Your task to perform on an android device: set default search engine in the chrome app Image 0: 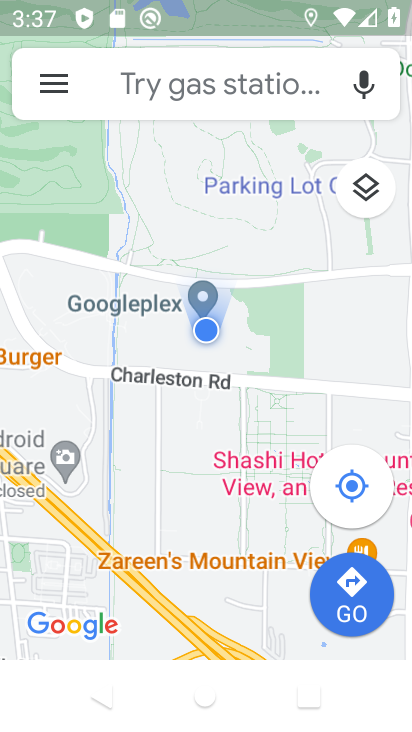
Step 0: press home button
Your task to perform on an android device: set default search engine in the chrome app Image 1: 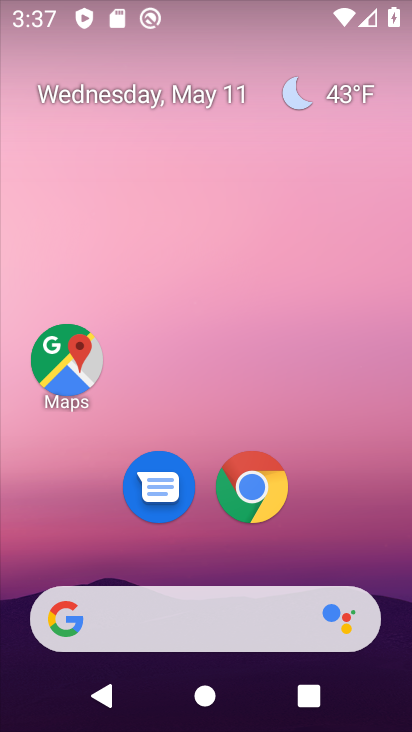
Step 1: drag from (314, 521) to (355, 195)
Your task to perform on an android device: set default search engine in the chrome app Image 2: 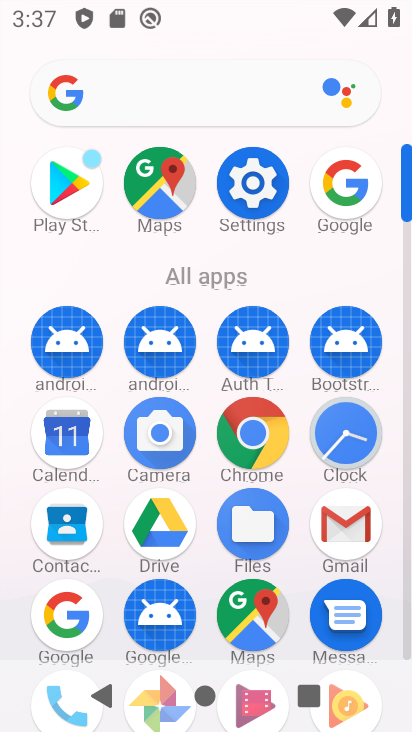
Step 2: click (257, 475)
Your task to perform on an android device: set default search engine in the chrome app Image 3: 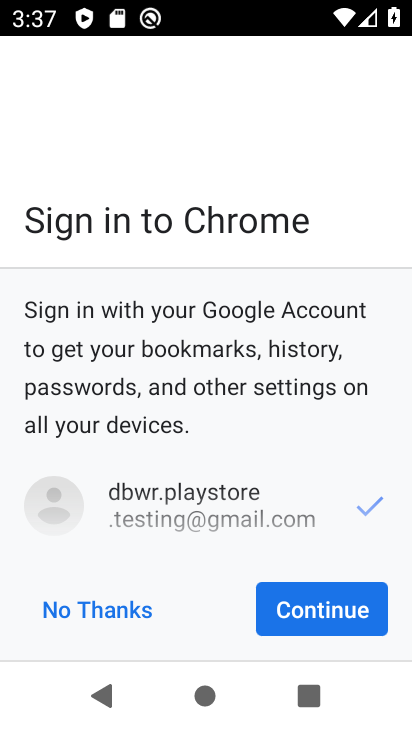
Step 3: click (310, 608)
Your task to perform on an android device: set default search engine in the chrome app Image 4: 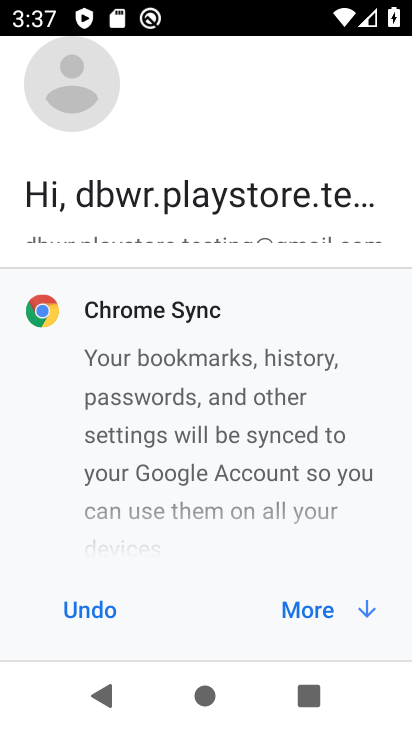
Step 4: click (310, 608)
Your task to perform on an android device: set default search engine in the chrome app Image 5: 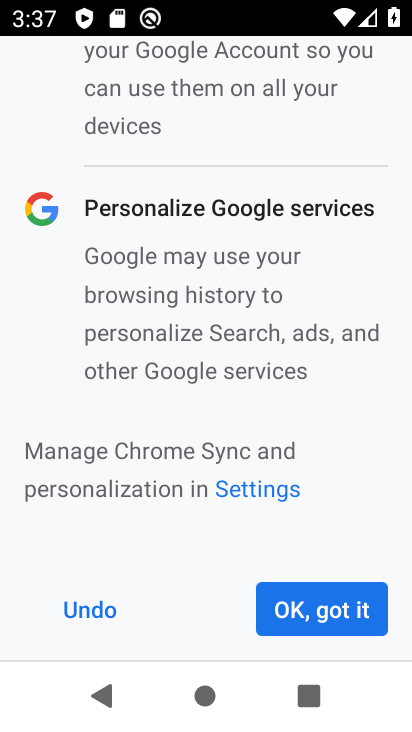
Step 5: click (310, 608)
Your task to perform on an android device: set default search engine in the chrome app Image 6: 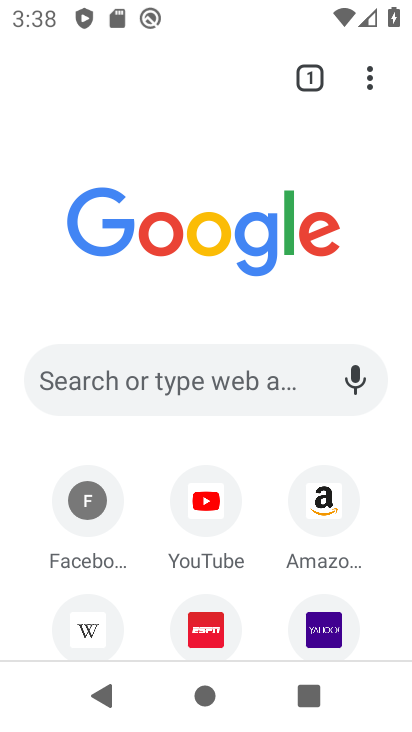
Step 6: click (367, 76)
Your task to perform on an android device: set default search engine in the chrome app Image 7: 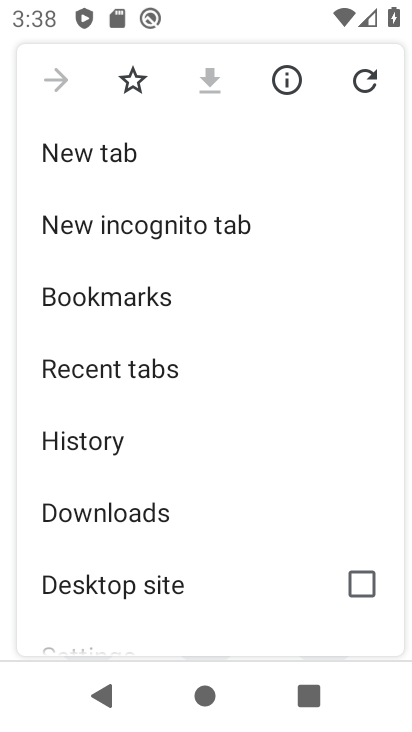
Step 7: drag from (217, 552) to (205, 287)
Your task to perform on an android device: set default search engine in the chrome app Image 8: 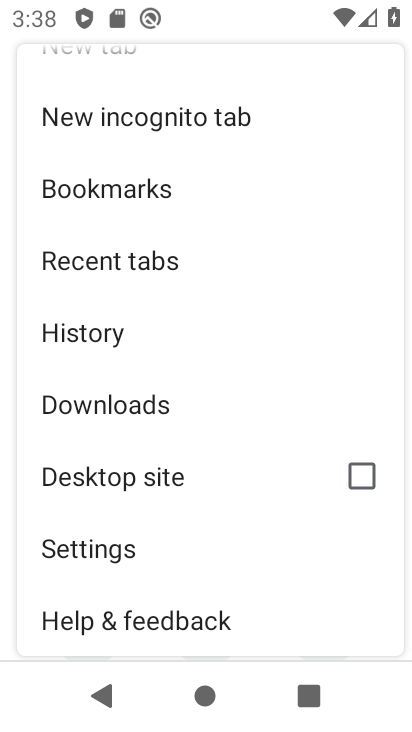
Step 8: click (129, 545)
Your task to perform on an android device: set default search engine in the chrome app Image 9: 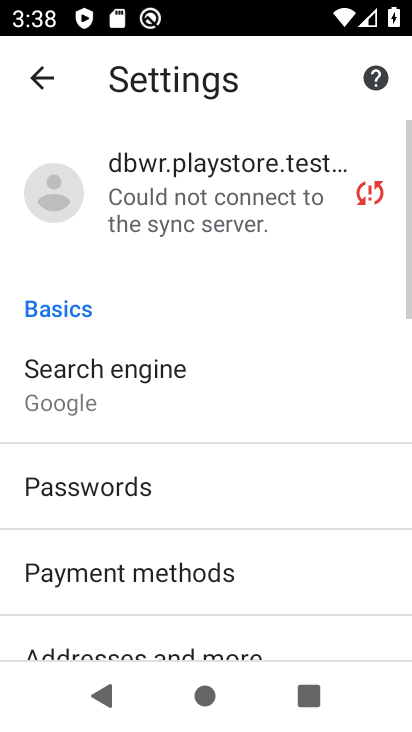
Step 9: drag from (157, 587) to (202, 419)
Your task to perform on an android device: set default search engine in the chrome app Image 10: 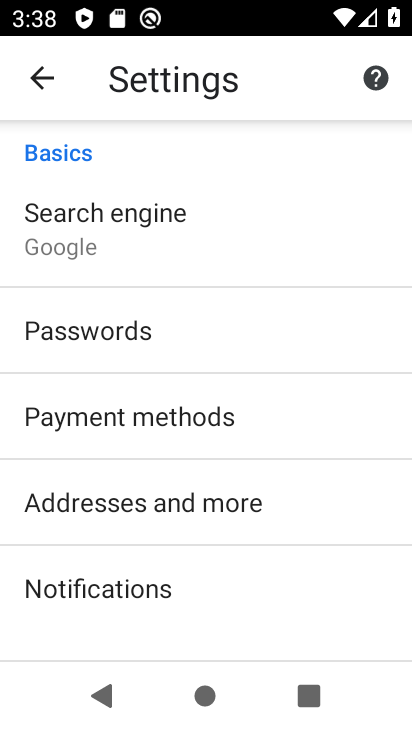
Step 10: click (113, 244)
Your task to perform on an android device: set default search engine in the chrome app Image 11: 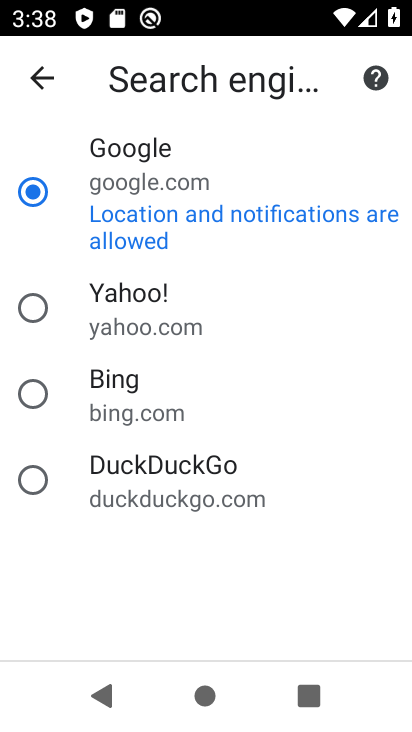
Step 11: click (33, 292)
Your task to perform on an android device: set default search engine in the chrome app Image 12: 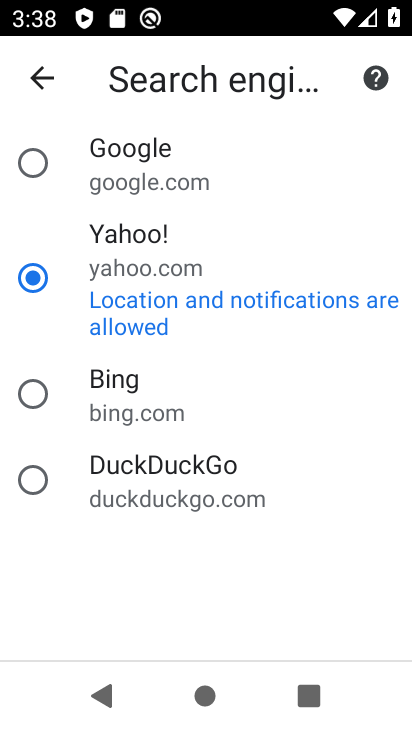
Step 12: task complete